Your task to perform on an android device: install app "Fetch Rewards" Image 0: 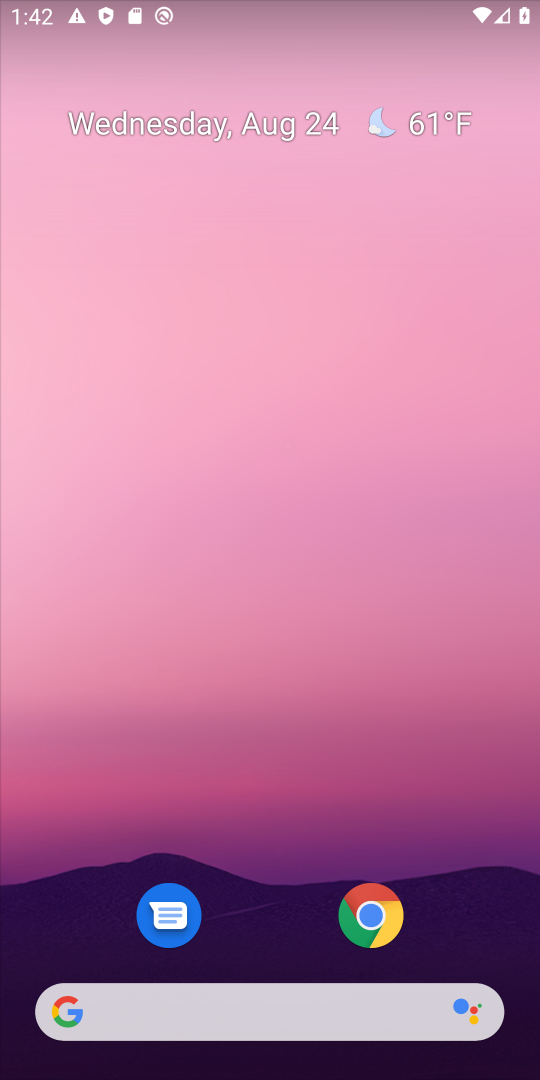
Step 0: drag from (276, 765) to (345, 208)
Your task to perform on an android device: install app "Fetch Rewards" Image 1: 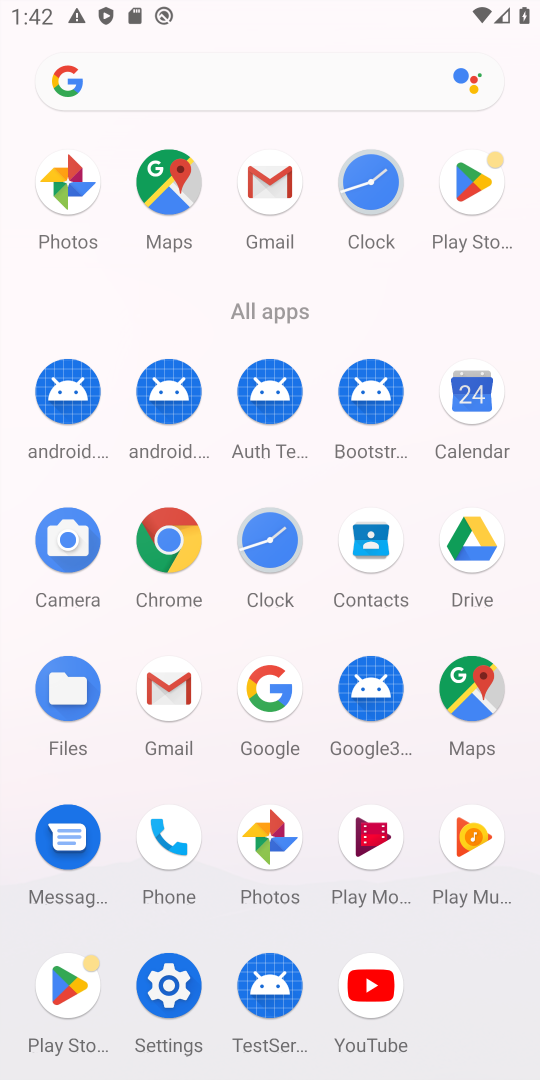
Step 1: click (458, 191)
Your task to perform on an android device: install app "Fetch Rewards" Image 2: 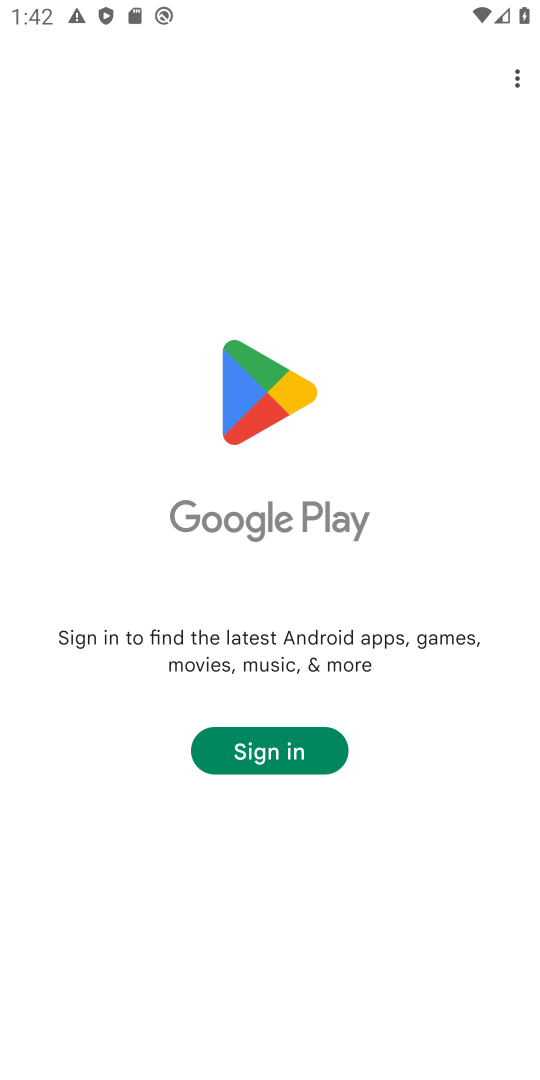
Step 2: task complete